Your task to perform on an android device: turn on improve location accuracy Image 0: 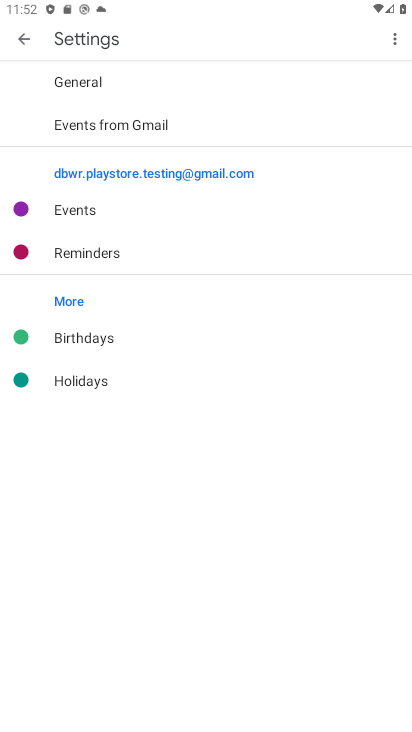
Step 0: press home button
Your task to perform on an android device: turn on improve location accuracy Image 1: 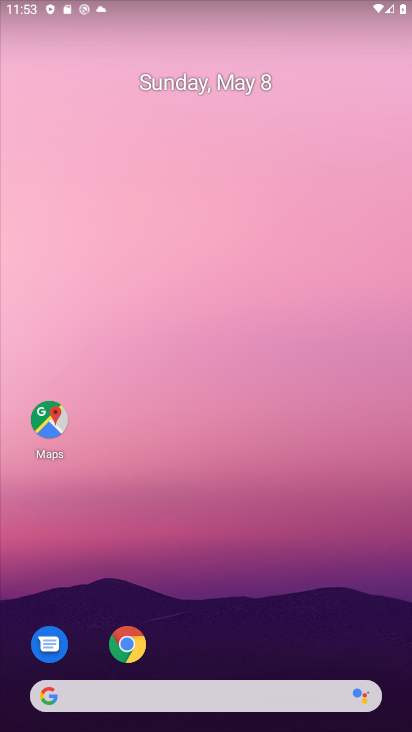
Step 1: drag from (240, 634) to (212, 65)
Your task to perform on an android device: turn on improve location accuracy Image 2: 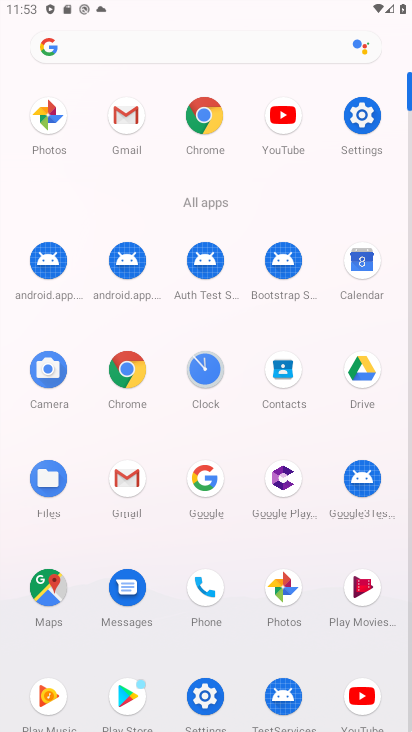
Step 2: click (199, 700)
Your task to perform on an android device: turn on improve location accuracy Image 3: 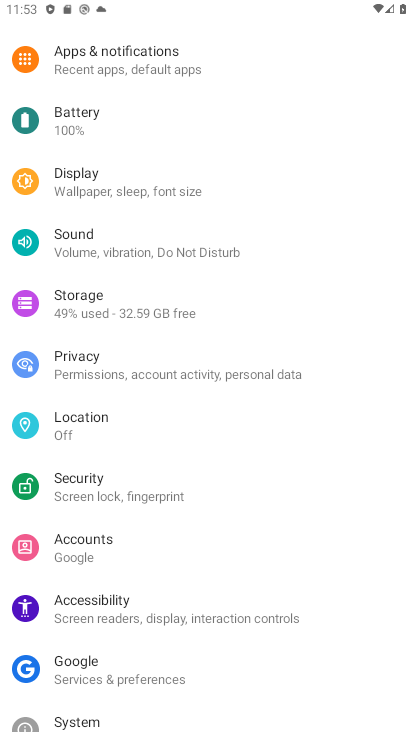
Step 3: drag from (125, 426) to (130, 340)
Your task to perform on an android device: turn on improve location accuracy Image 4: 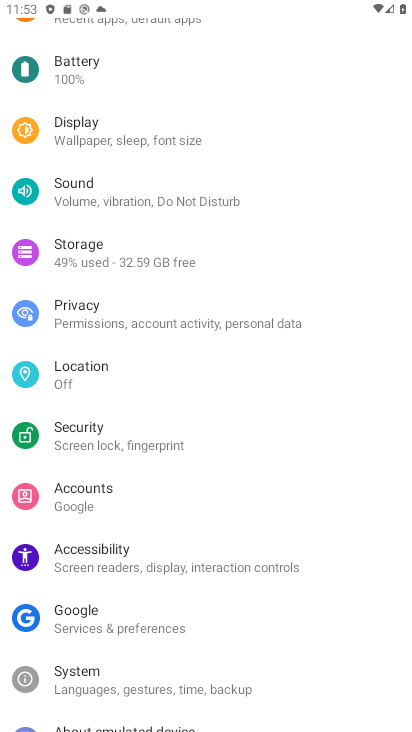
Step 4: click (78, 373)
Your task to perform on an android device: turn on improve location accuracy Image 5: 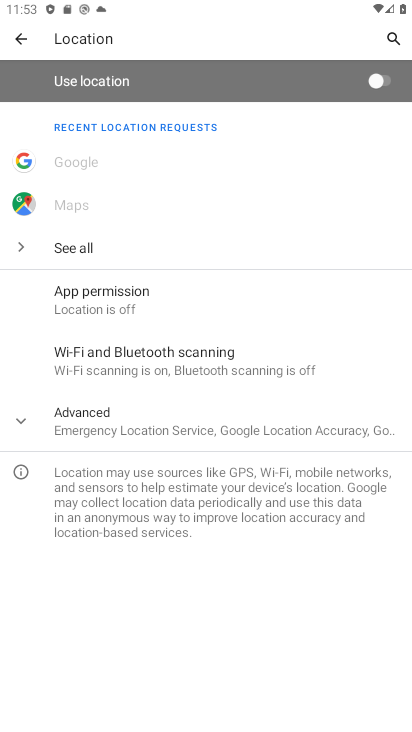
Step 5: click (137, 426)
Your task to perform on an android device: turn on improve location accuracy Image 6: 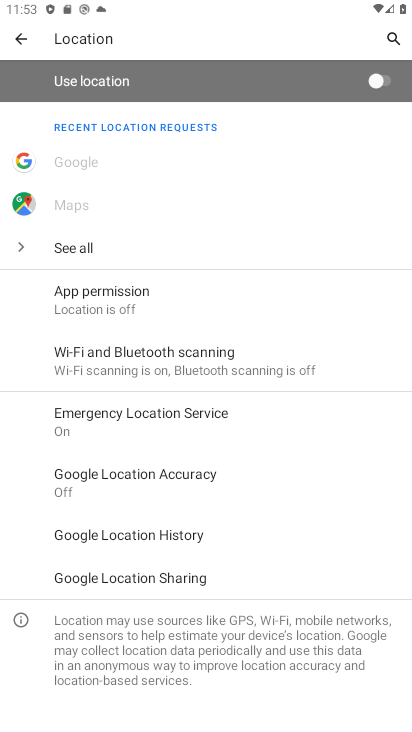
Step 6: click (189, 483)
Your task to perform on an android device: turn on improve location accuracy Image 7: 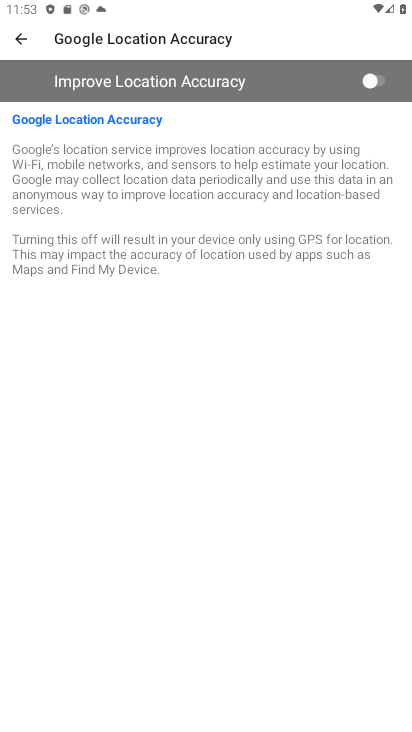
Step 7: click (373, 80)
Your task to perform on an android device: turn on improve location accuracy Image 8: 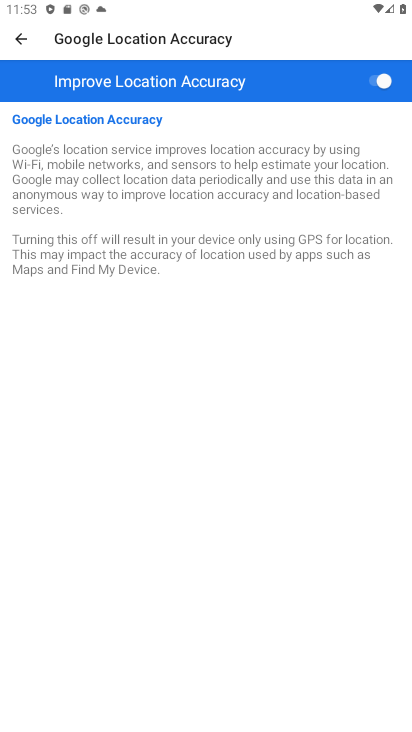
Step 8: task complete